Your task to perform on an android device: What's on my calendar tomorrow? Image 0: 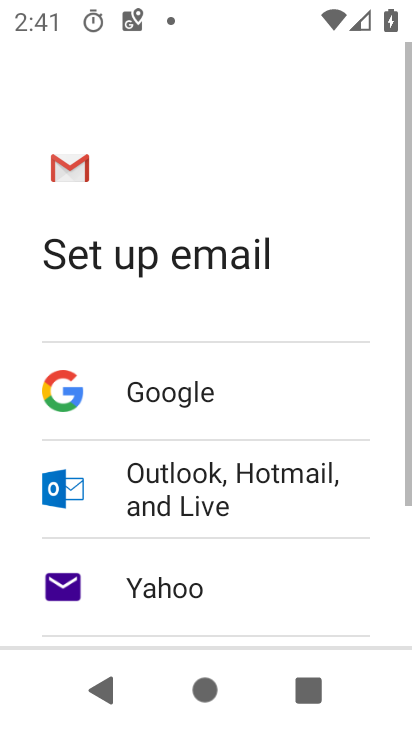
Step 0: press back button
Your task to perform on an android device: What's on my calendar tomorrow? Image 1: 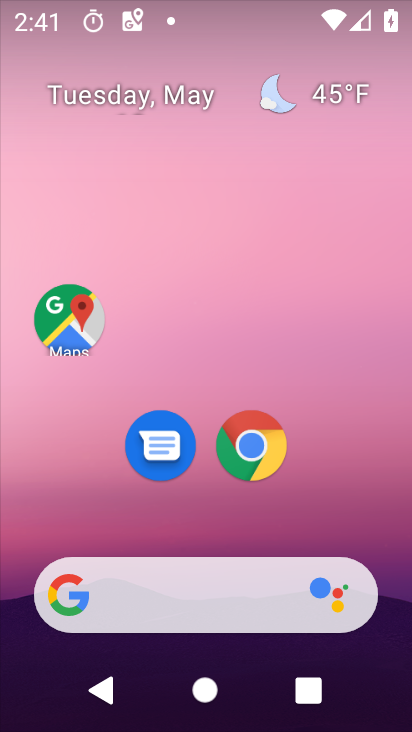
Step 1: drag from (216, 516) to (311, 58)
Your task to perform on an android device: What's on my calendar tomorrow? Image 2: 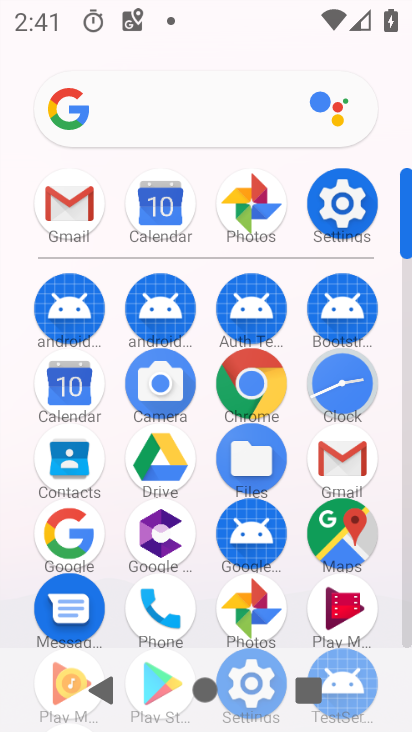
Step 2: click (166, 200)
Your task to perform on an android device: What's on my calendar tomorrow? Image 3: 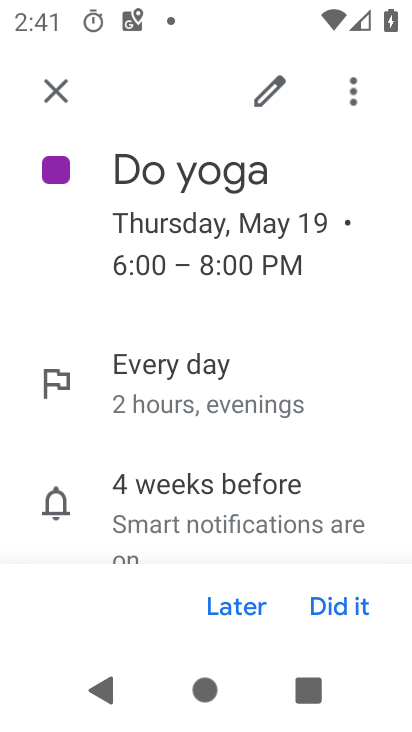
Step 3: click (55, 82)
Your task to perform on an android device: What's on my calendar tomorrow? Image 4: 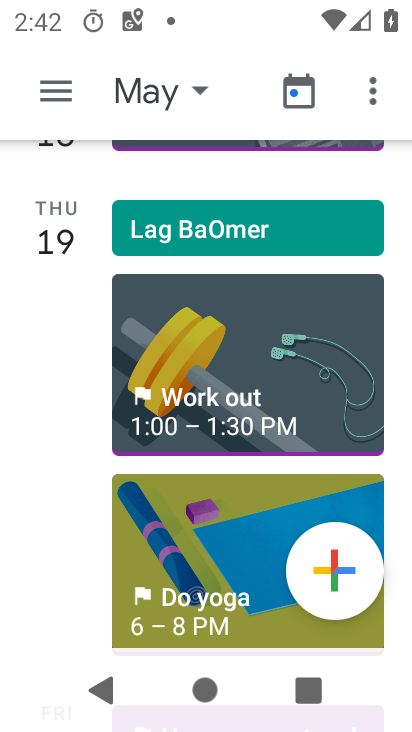
Step 4: click (149, 83)
Your task to perform on an android device: What's on my calendar tomorrow? Image 5: 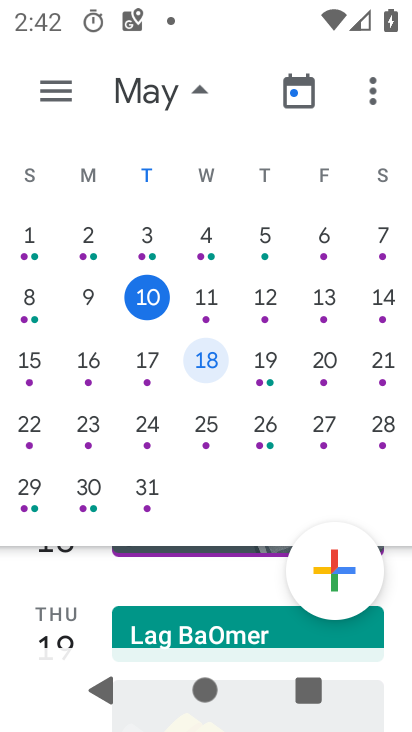
Step 5: click (135, 296)
Your task to perform on an android device: What's on my calendar tomorrow? Image 6: 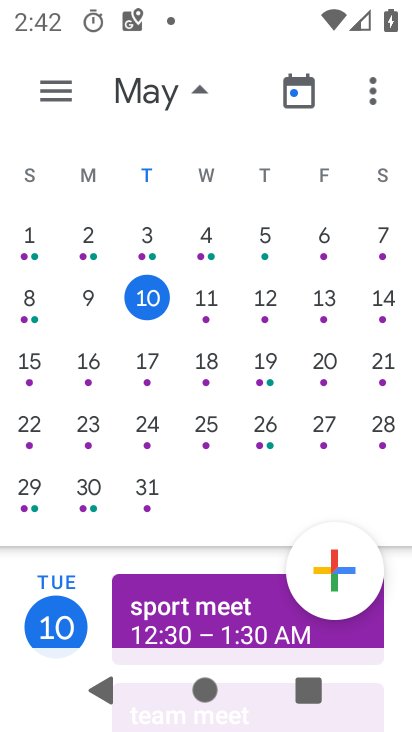
Step 6: drag from (188, 604) to (326, 110)
Your task to perform on an android device: What's on my calendar tomorrow? Image 7: 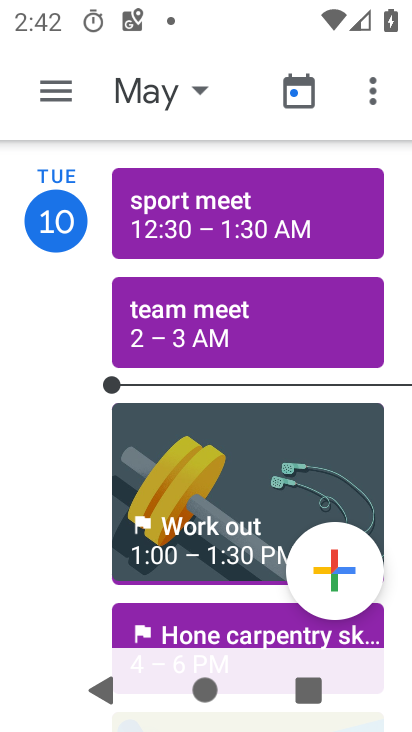
Step 7: drag from (197, 542) to (332, 90)
Your task to perform on an android device: What's on my calendar tomorrow? Image 8: 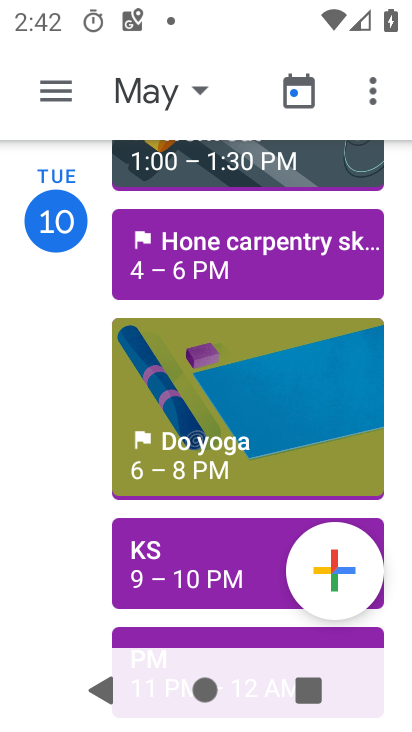
Step 8: drag from (181, 552) to (303, 50)
Your task to perform on an android device: What's on my calendar tomorrow? Image 9: 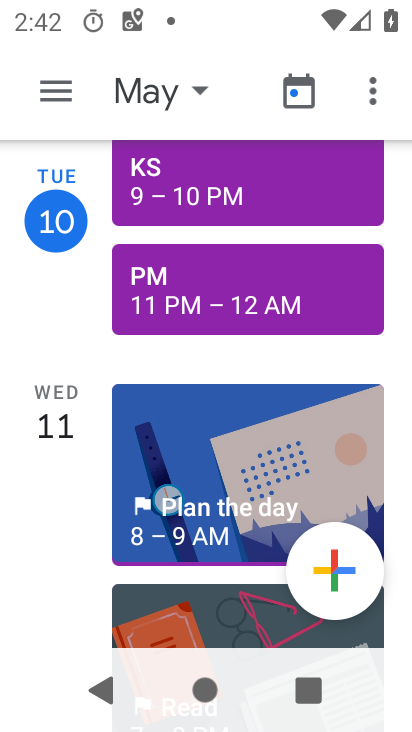
Step 9: drag from (174, 534) to (287, 162)
Your task to perform on an android device: What's on my calendar tomorrow? Image 10: 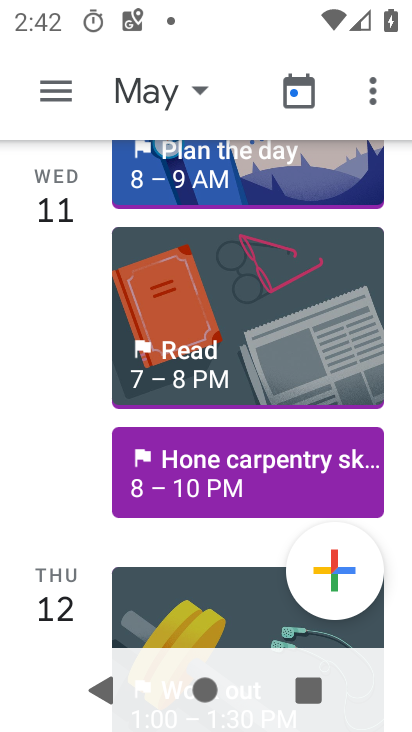
Step 10: click (182, 489)
Your task to perform on an android device: What's on my calendar tomorrow? Image 11: 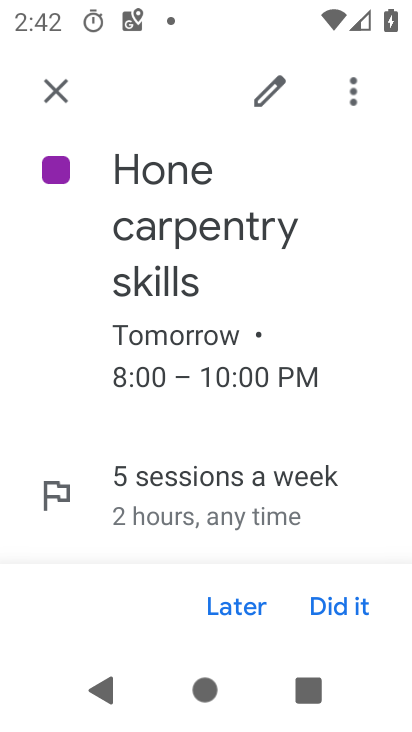
Step 11: task complete